Your task to perform on an android device: change the upload size in google photos Image 0: 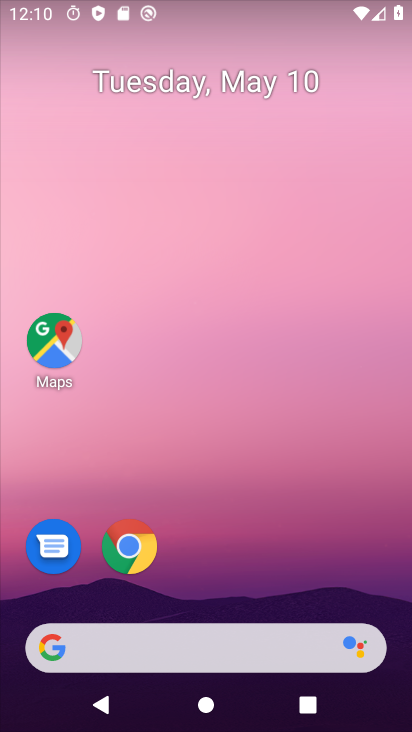
Step 0: drag from (276, 234) to (300, 5)
Your task to perform on an android device: change the upload size in google photos Image 1: 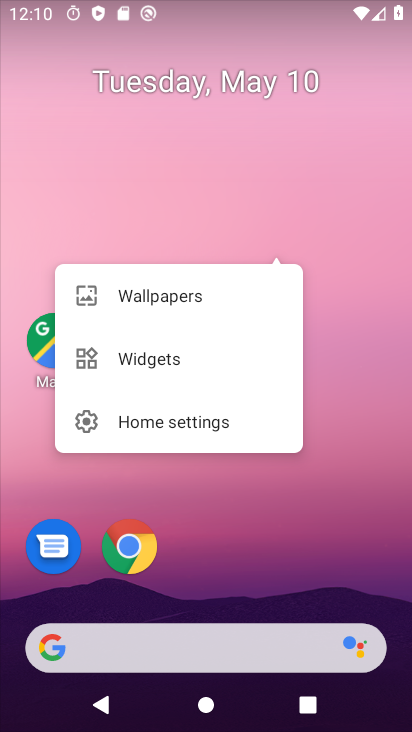
Step 1: drag from (280, 581) to (383, 29)
Your task to perform on an android device: change the upload size in google photos Image 2: 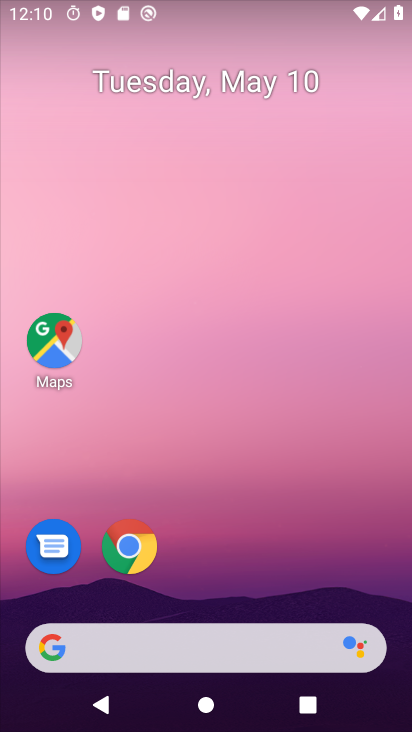
Step 2: drag from (271, 577) to (299, 191)
Your task to perform on an android device: change the upload size in google photos Image 3: 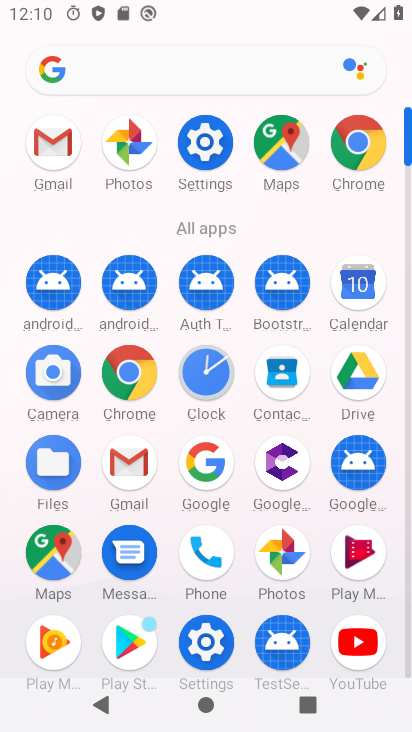
Step 3: click (287, 531)
Your task to perform on an android device: change the upload size in google photos Image 4: 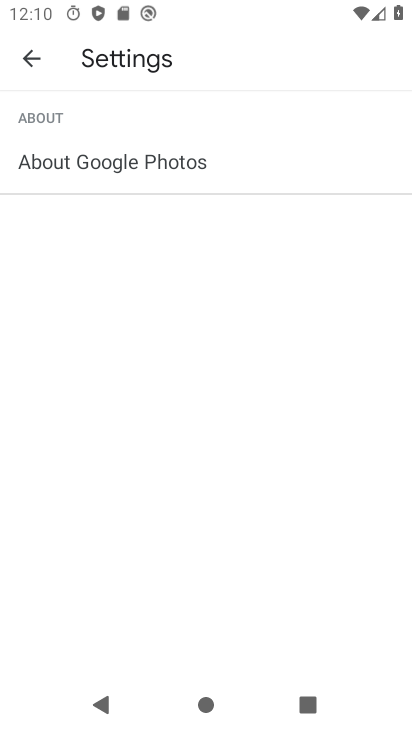
Step 4: click (29, 62)
Your task to perform on an android device: change the upload size in google photos Image 5: 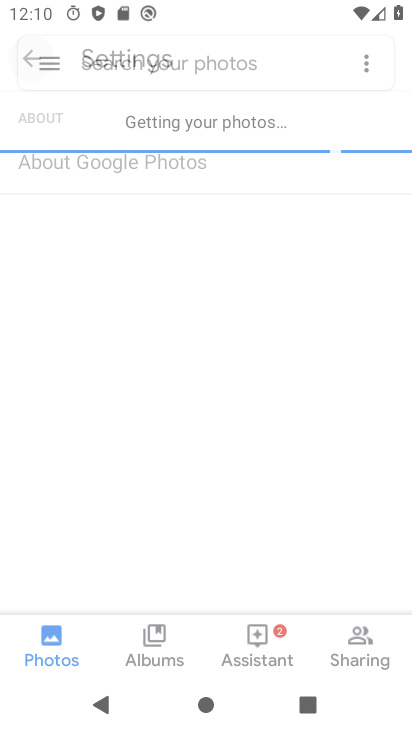
Step 5: click (29, 62)
Your task to perform on an android device: change the upload size in google photos Image 6: 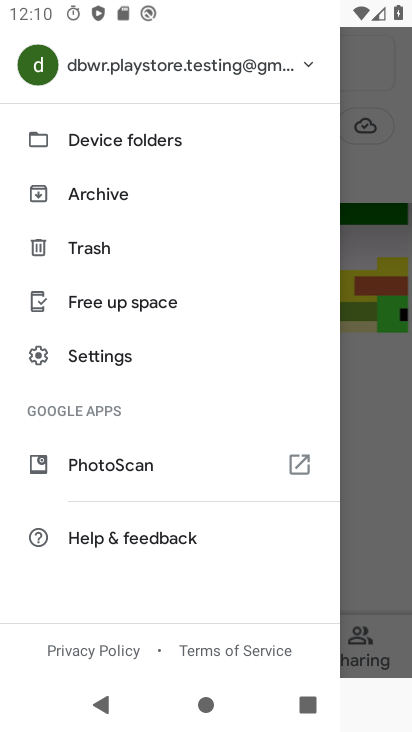
Step 6: click (127, 354)
Your task to perform on an android device: change the upload size in google photos Image 7: 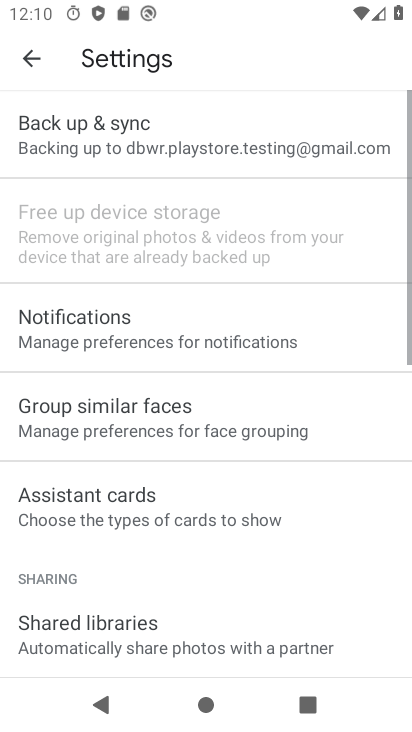
Step 7: click (157, 144)
Your task to perform on an android device: change the upload size in google photos Image 8: 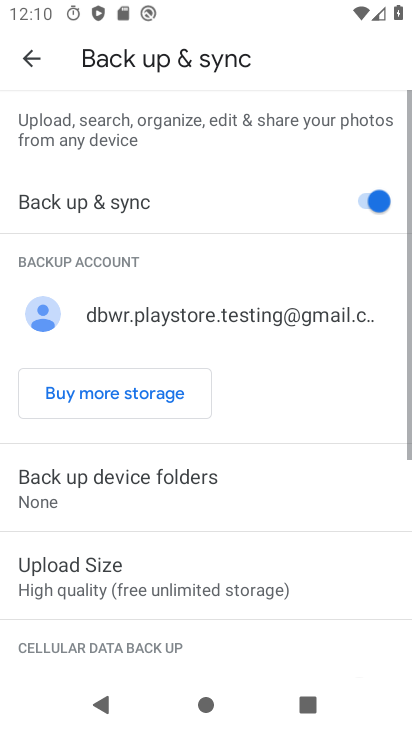
Step 8: drag from (206, 496) to (216, 146)
Your task to perform on an android device: change the upload size in google photos Image 9: 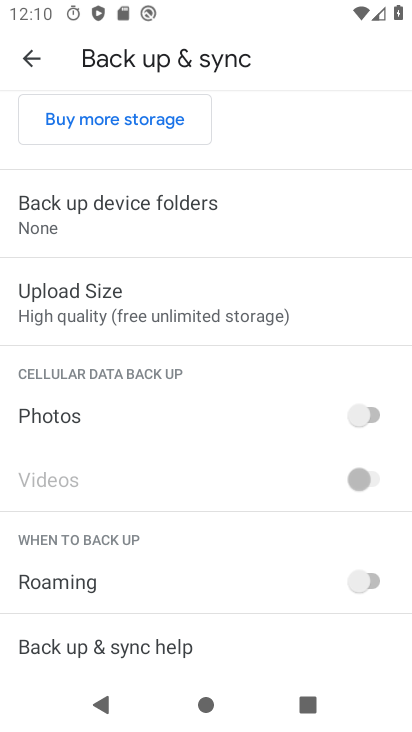
Step 9: click (157, 311)
Your task to perform on an android device: change the upload size in google photos Image 10: 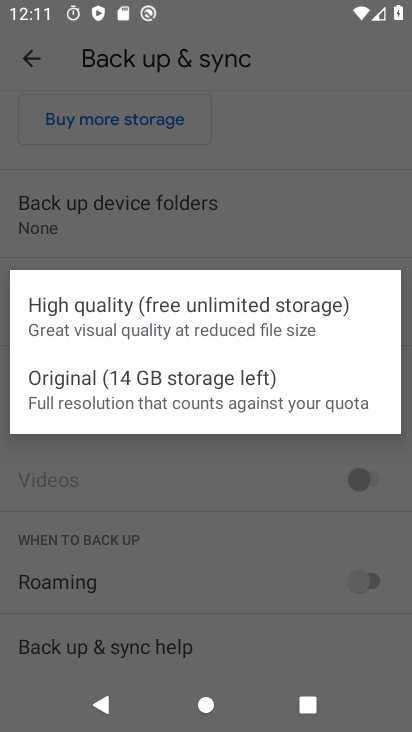
Step 10: click (172, 382)
Your task to perform on an android device: change the upload size in google photos Image 11: 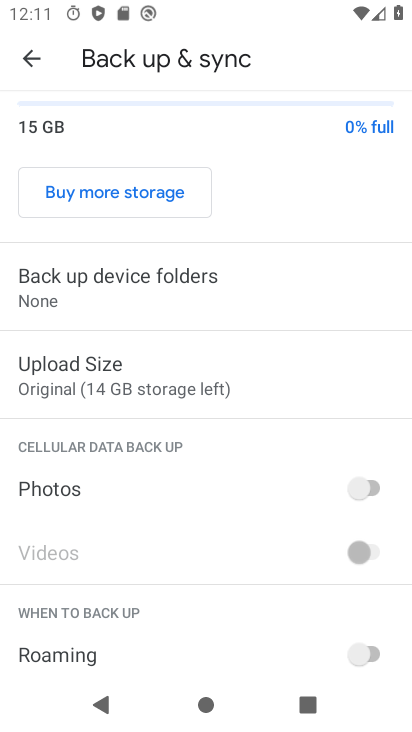
Step 11: task complete